Your task to perform on an android device: Open settings Image 0: 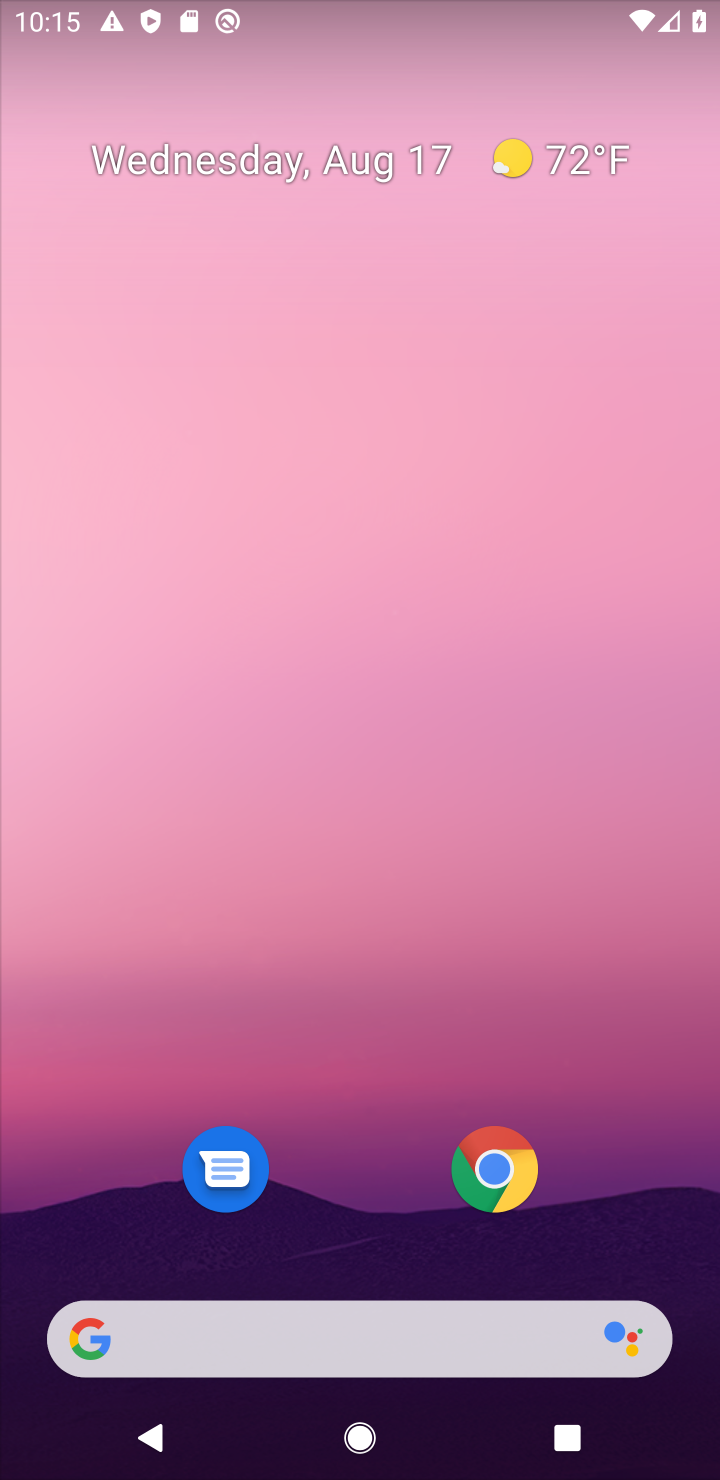
Step 0: drag from (314, 1055) to (313, 458)
Your task to perform on an android device: Open settings Image 1: 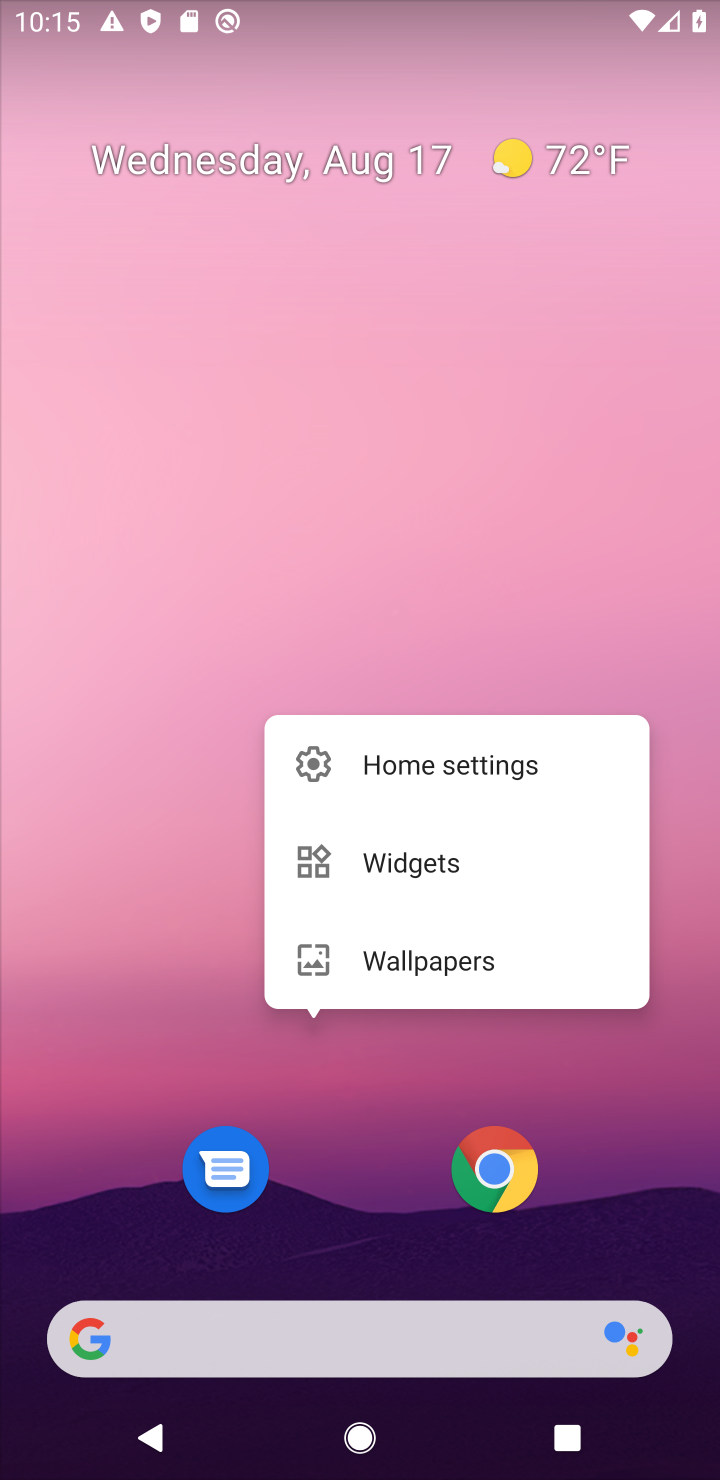
Step 1: click (152, 590)
Your task to perform on an android device: Open settings Image 2: 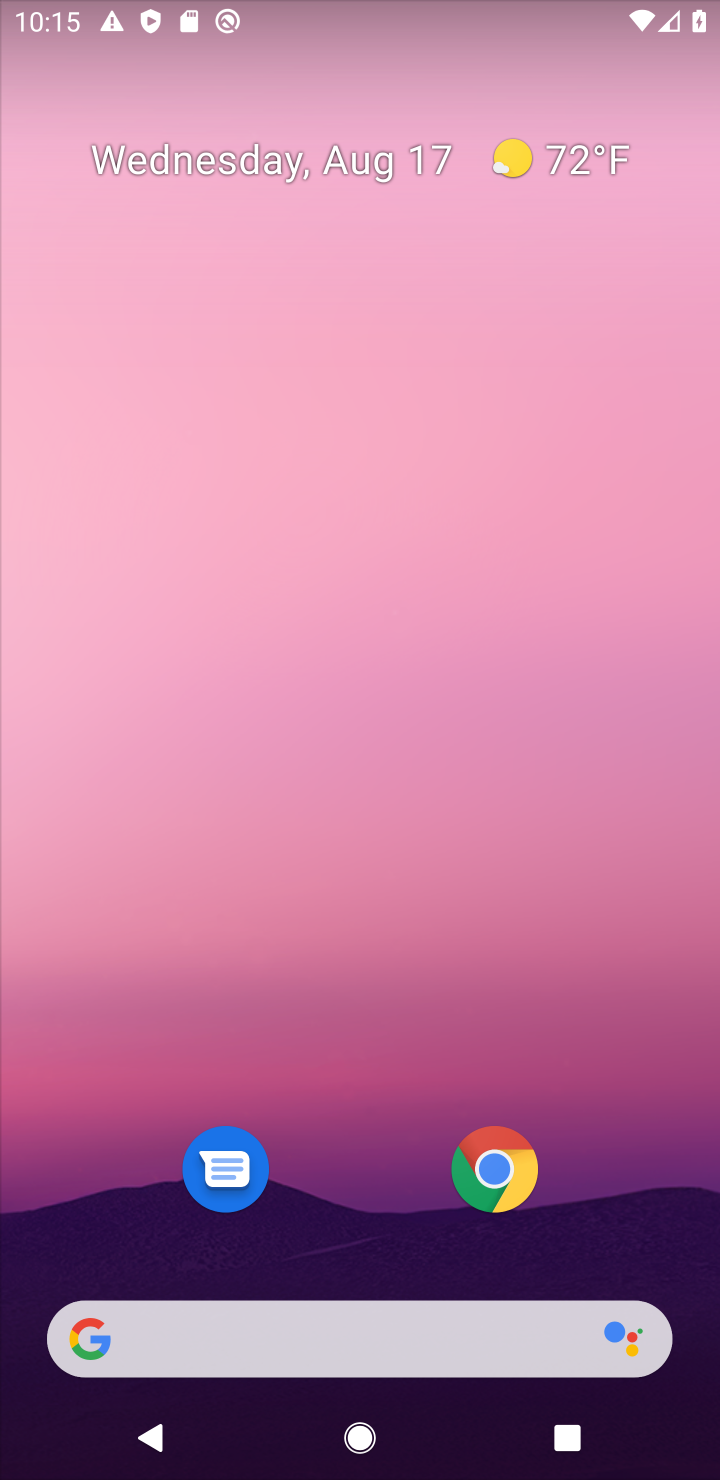
Step 2: drag from (329, 975) to (417, 229)
Your task to perform on an android device: Open settings Image 3: 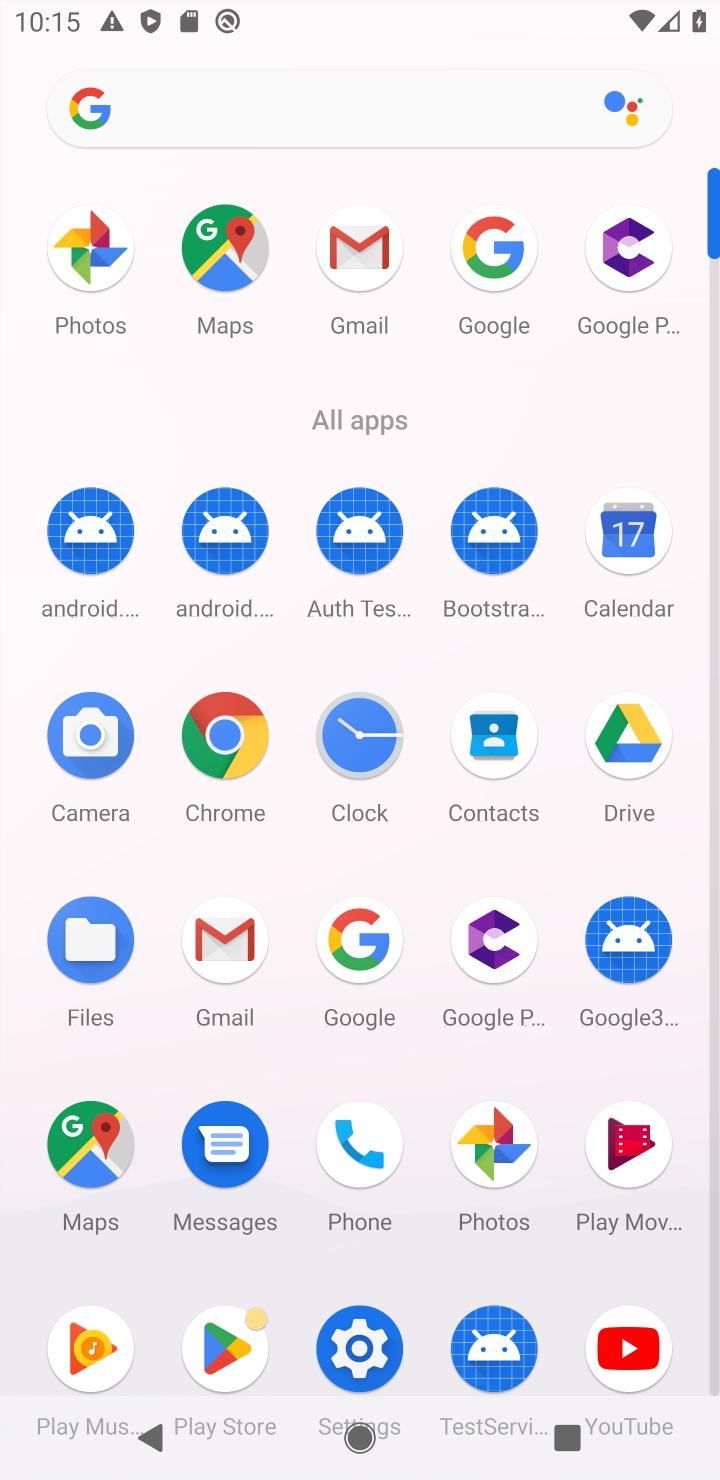
Step 3: click (360, 1351)
Your task to perform on an android device: Open settings Image 4: 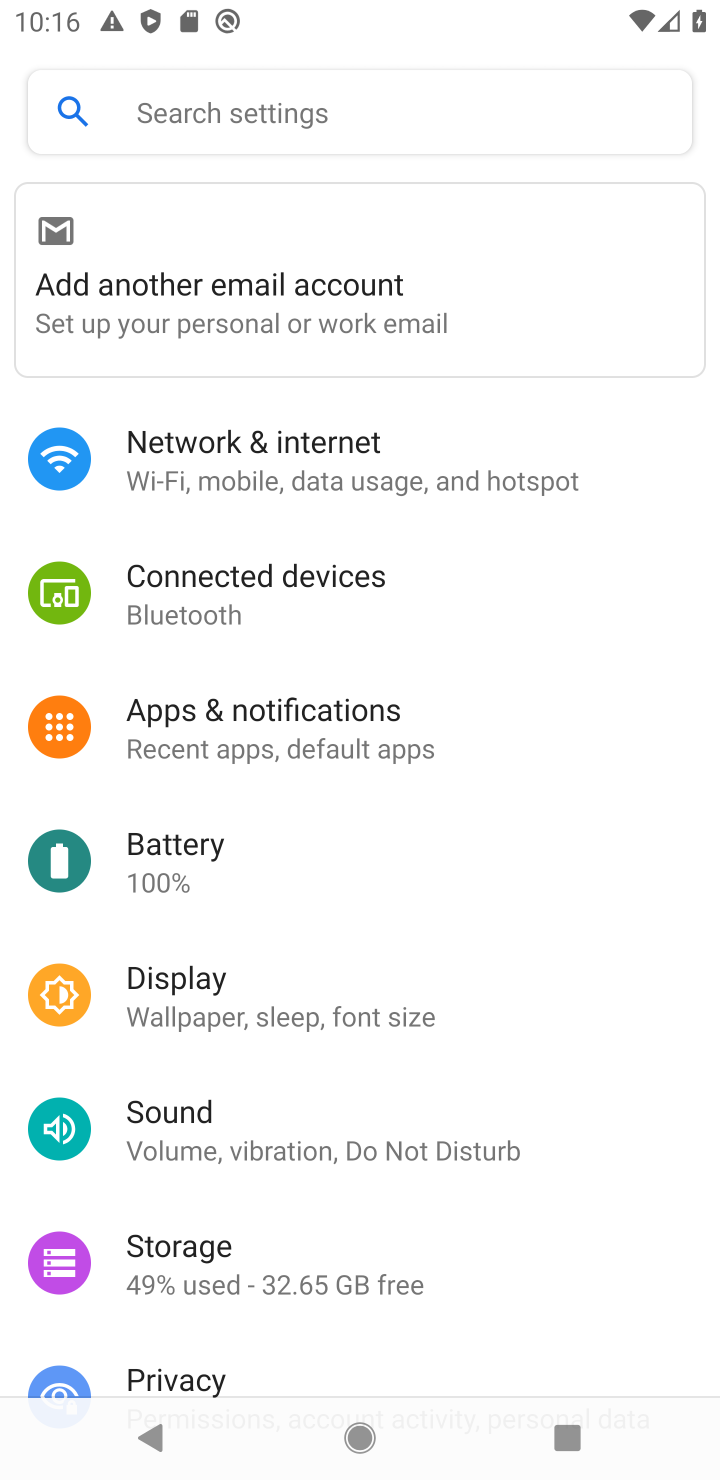
Step 4: task complete